Your task to perform on an android device: clear all cookies in the chrome app Image 0: 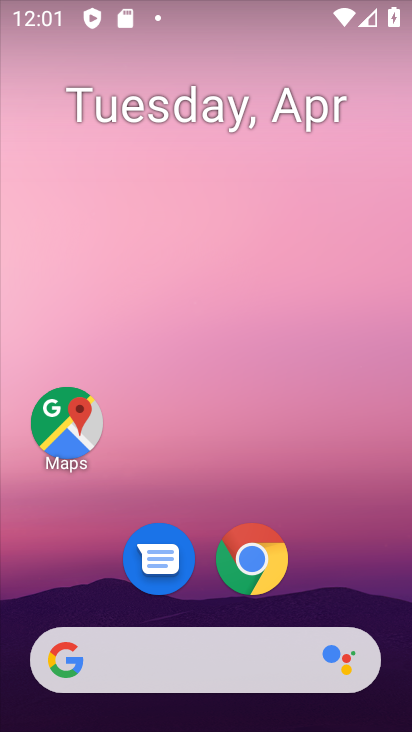
Step 0: drag from (366, 572) to (291, 264)
Your task to perform on an android device: clear all cookies in the chrome app Image 1: 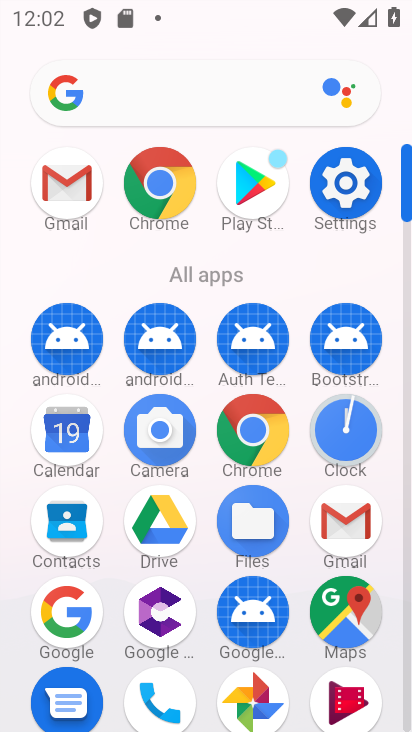
Step 1: click (175, 202)
Your task to perform on an android device: clear all cookies in the chrome app Image 2: 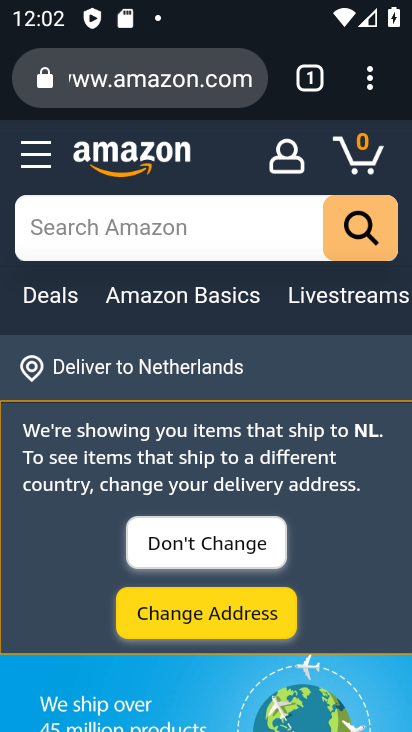
Step 2: click (361, 68)
Your task to perform on an android device: clear all cookies in the chrome app Image 3: 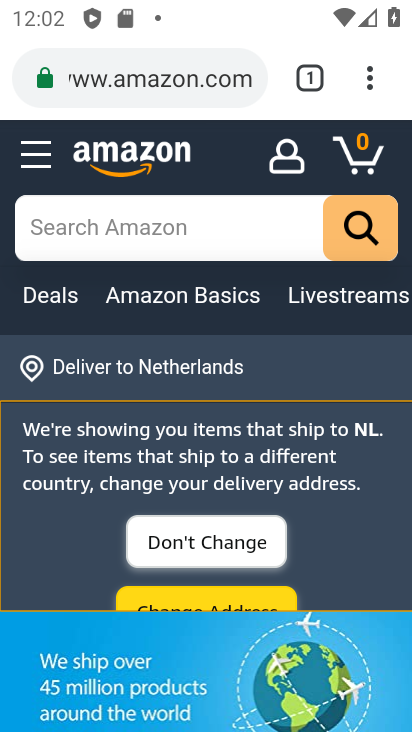
Step 3: drag from (364, 72) to (136, 137)
Your task to perform on an android device: clear all cookies in the chrome app Image 4: 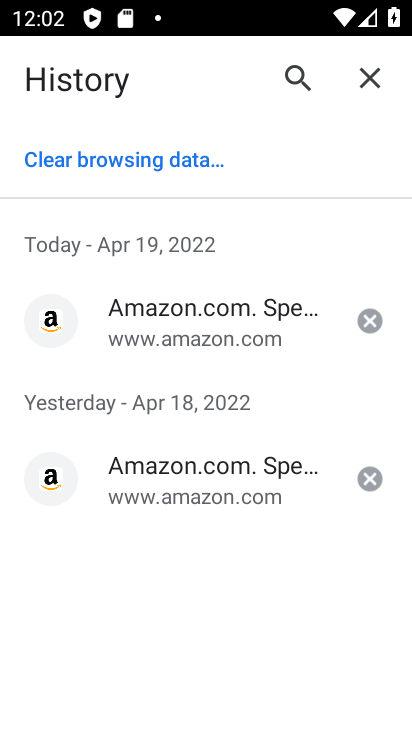
Step 4: click (149, 156)
Your task to perform on an android device: clear all cookies in the chrome app Image 5: 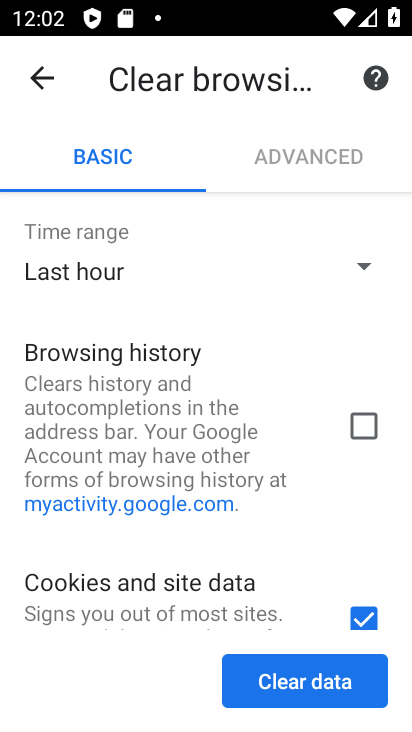
Step 5: click (338, 668)
Your task to perform on an android device: clear all cookies in the chrome app Image 6: 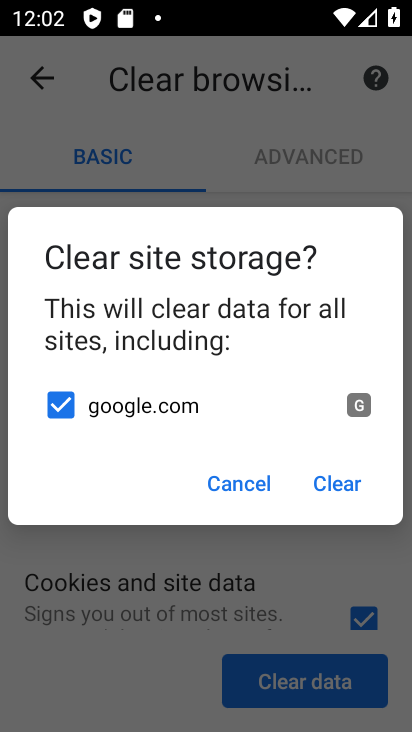
Step 6: click (339, 505)
Your task to perform on an android device: clear all cookies in the chrome app Image 7: 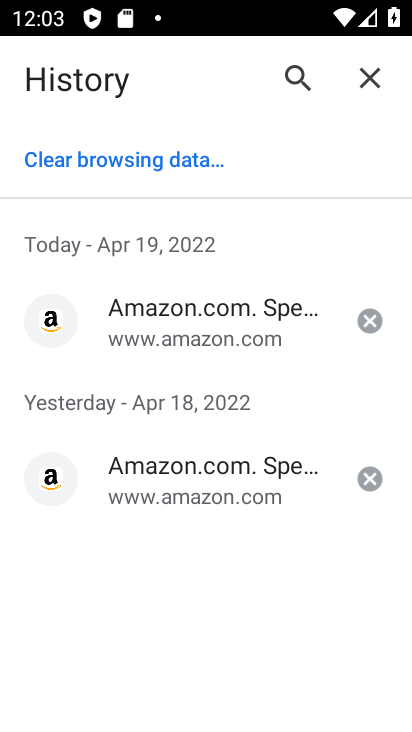
Step 7: task complete